Your task to perform on an android device: Open internet settings Image 0: 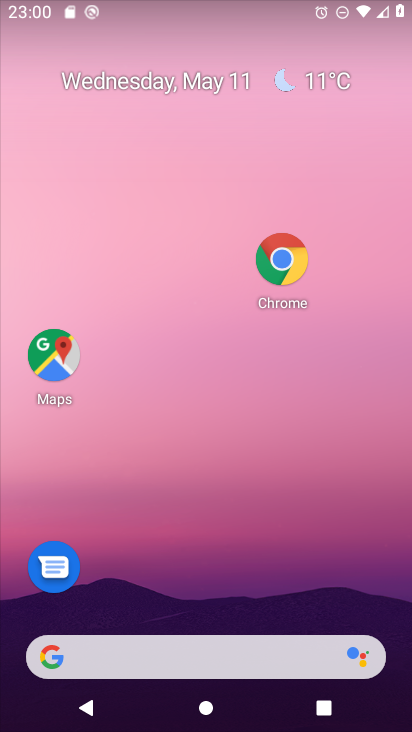
Step 0: drag from (210, 645) to (252, 158)
Your task to perform on an android device: Open internet settings Image 1: 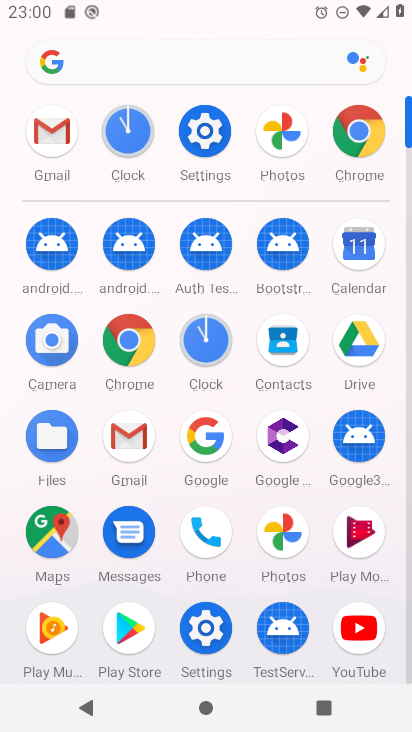
Step 1: click (199, 140)
Your task to perform on an android device: Open internet settings Image 2: 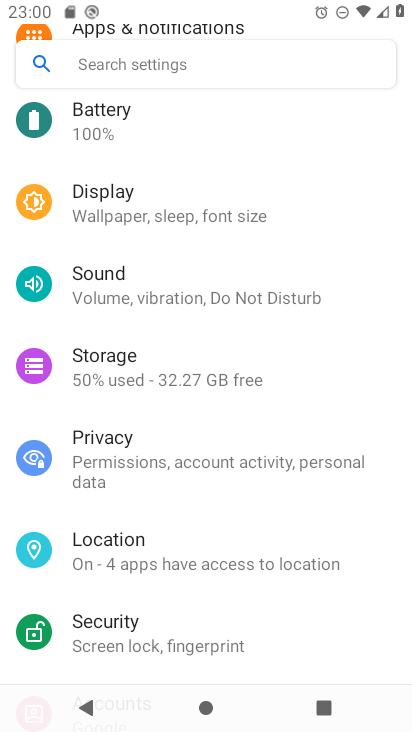
Step 2: drag from (278, 159) to (268, 528)
Your task to perform on an android device: Open internet settings Image 3: 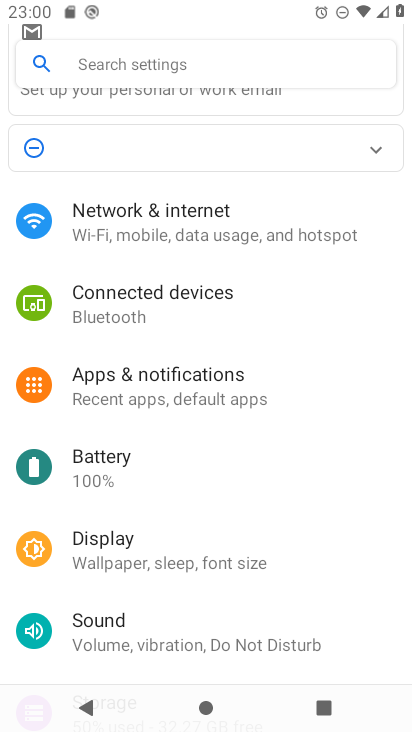
Step 3: click (180, 223)
Your task to perform on an android device: Open internet settings Image 4: 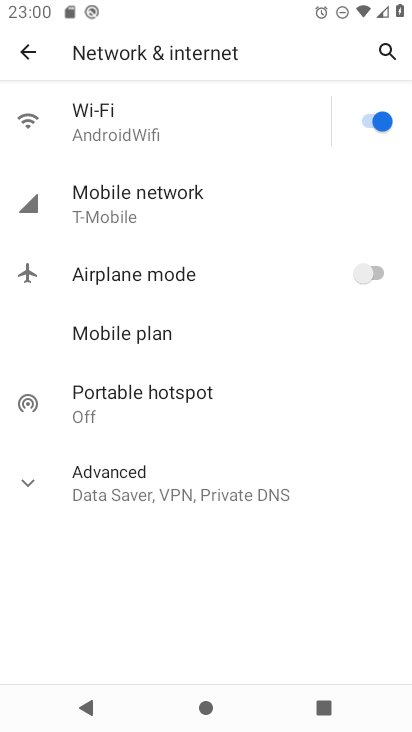
Step 4: task complete